Your task to perform on an android device: Open the web browser Image 0: 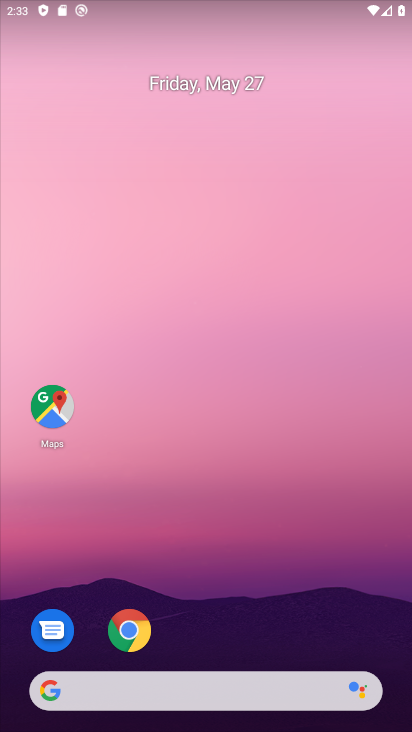
Step 0: click (183, 668)
Your task to perform on an android device: Open the web browser Image 1: 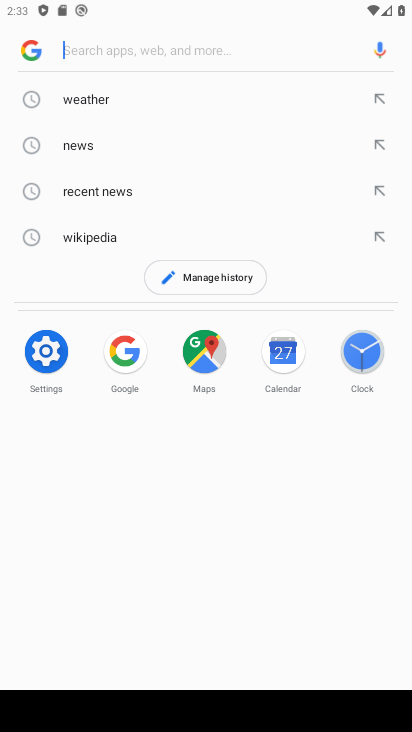
Step 1: click (150, 57)
Your task to perform on an android device: Open the web browser Image 2: 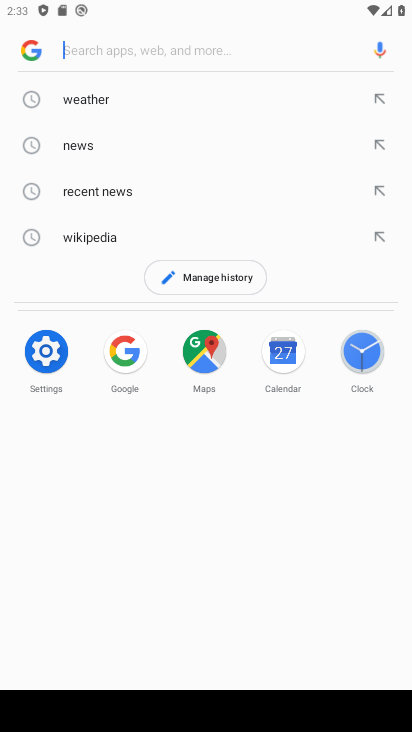
Step 2: task complete